Your task to perform on an android device: Search for sushi restaurants on Maps Image 0: 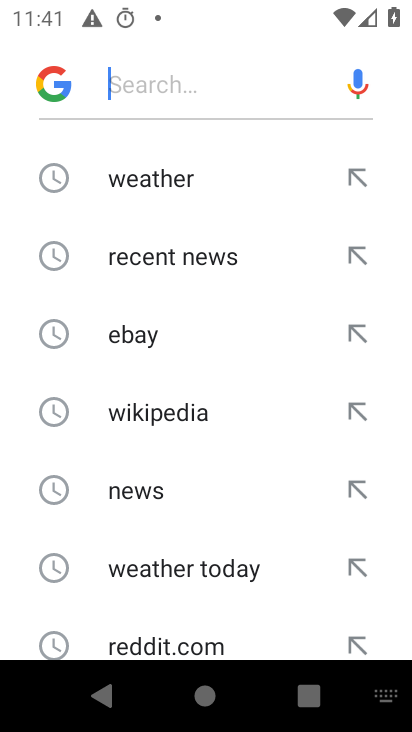
Step 0: press back button
Your task to perform on an android device: Search for sushi restaurants on Maps Image 1: 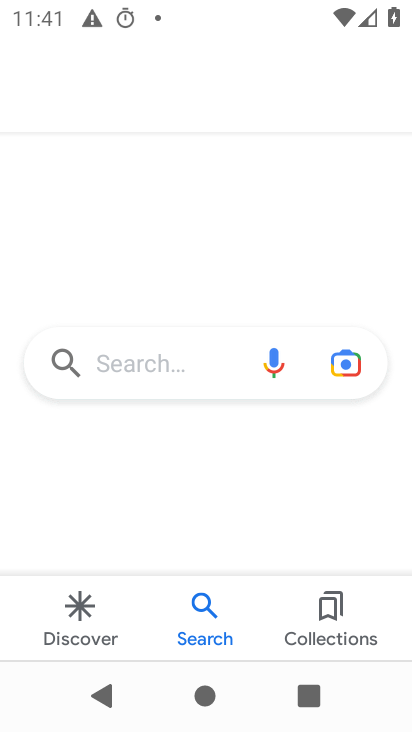
Step 1: press back button
Your task to perform on an android device: Search for sushi restaurants on Maps Image 2: 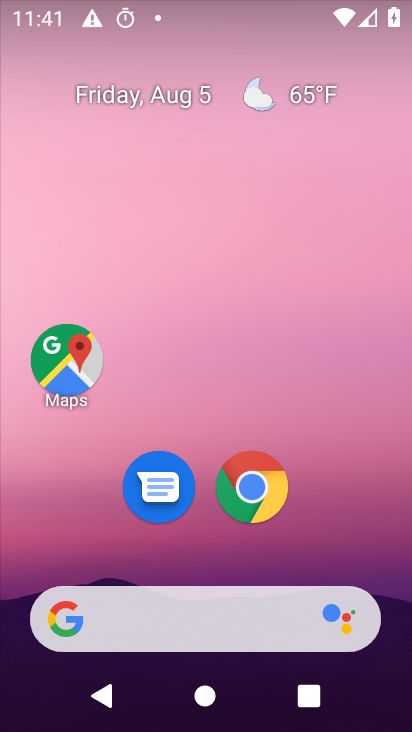
Step 2: click (61, 348)
Your task to perform on an android device: Search for sushi restaurants on Maps Image 3: 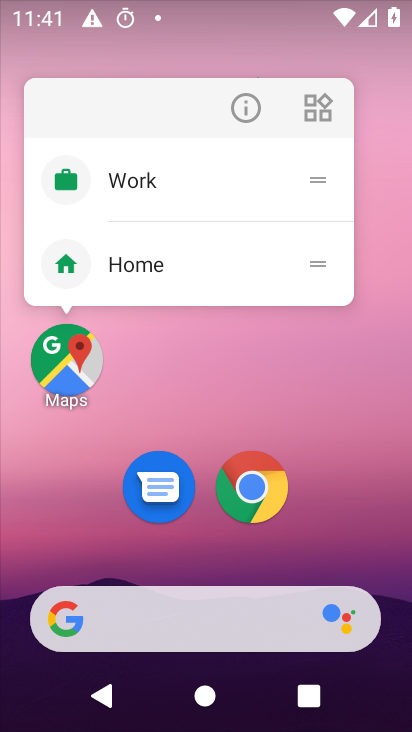
Step 3: click (74, 350)
Your task to perform on an android device: Search for sushi restaurants on Maps Image 4: 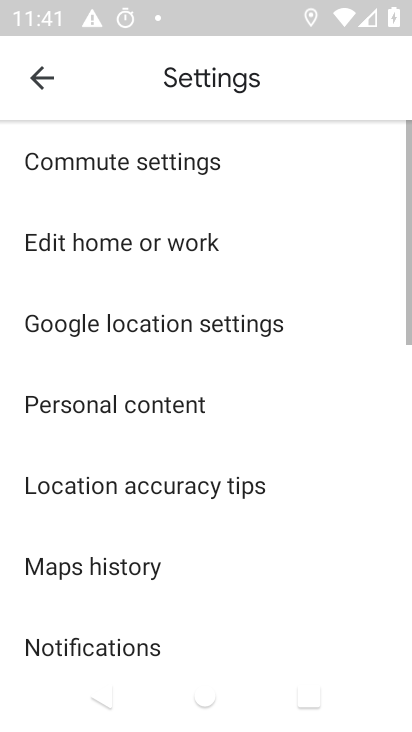
Step 4: click (46, 72)
Your task to perform on an android device: Search for sushi restaurants on Maps Image 5: 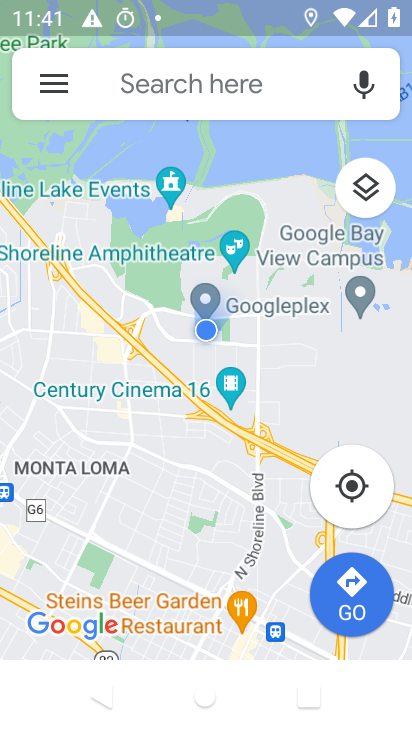
Step 5: click (246, 92)
Your task to perform on an android device: Search for sushi restaurants on Maps Image 6: 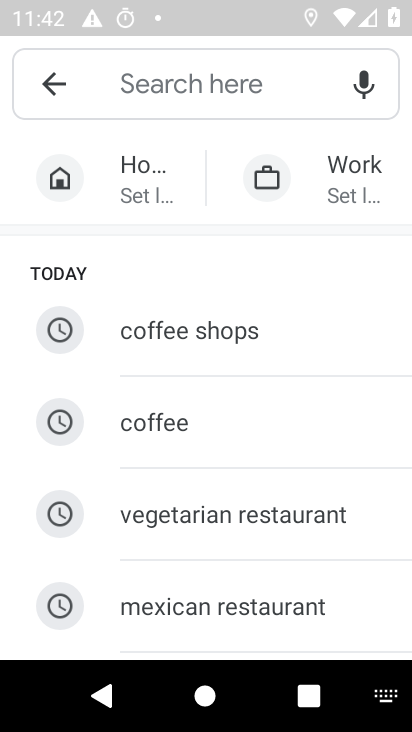
Step 6: type "sushi restaurants"
Your task to perform on an android device: Search for sushi restaurants on Maps Image 7: 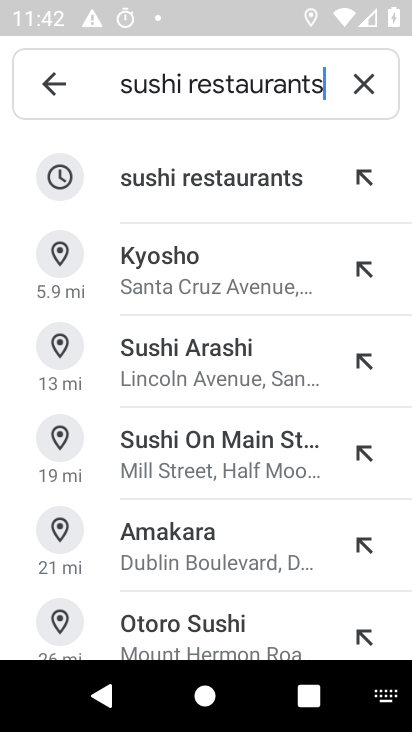
Step 7: click (225, 182)
Your task to perform on an android device: Search for sushi restaurants on Maps Image 8: 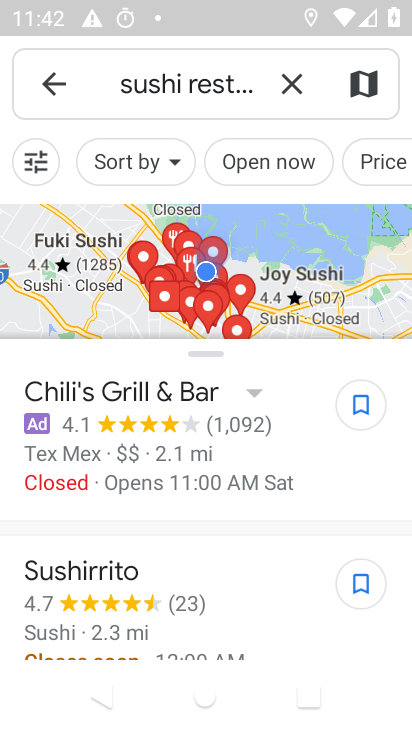
Step 8: task complete